Your task to perform on an android device: clear all cookies in the chrome app Image 0: 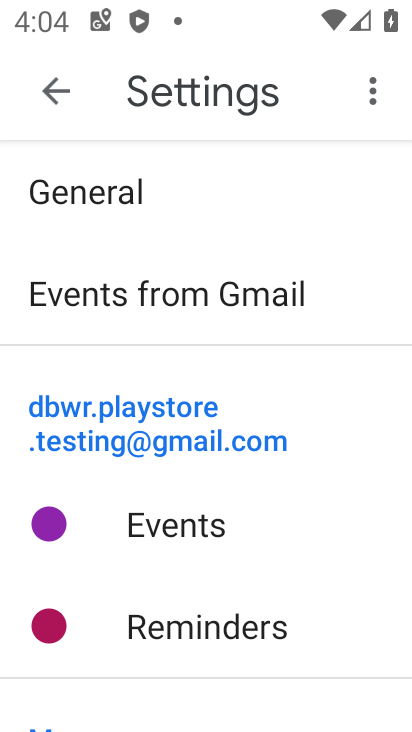
Step 0: press back button
Your task to perform on an android device: clear all cookies in the chrome app Image 1: 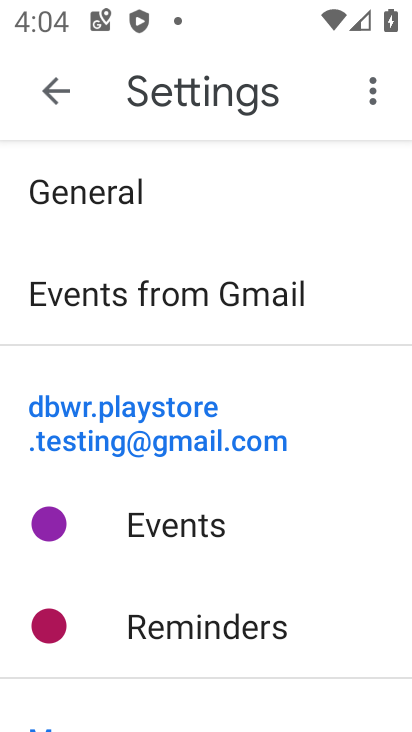
Step 1: press back button
Your task to perform on an android device: clear all cookies in the chrome app Image 2: 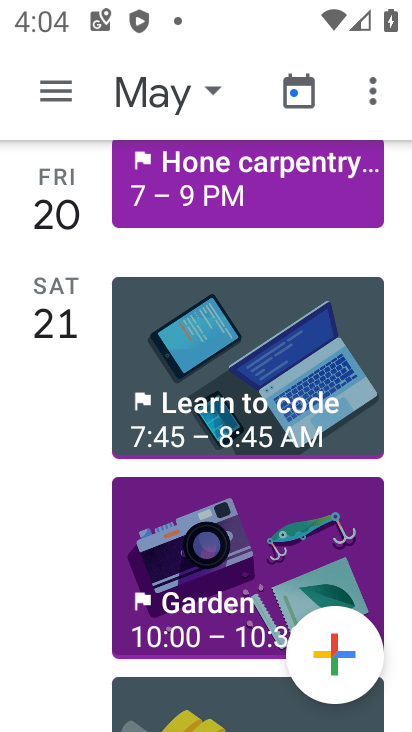
Step 2: press back button
Your task to perform on an android device: clear all cookies in the chrome app Image 3: 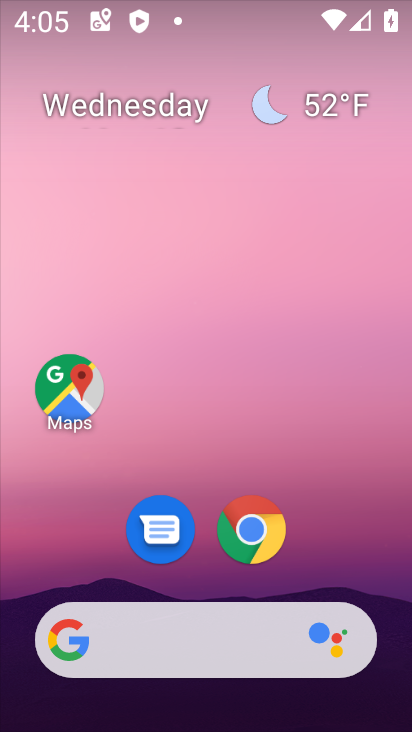
Step 3: click (248, 531)
Your task to perform on an android device: clear all cookies in the chrome app Image 4: 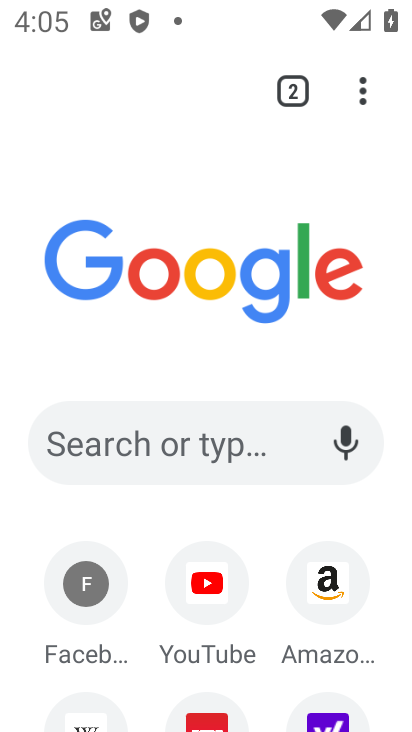
Step 4: click (362, 93)
Your task to perform on an android device: clear all cookies in the chrome app Image 5: 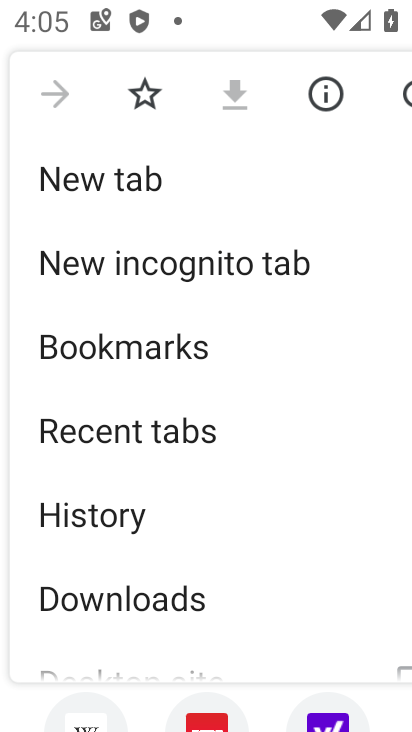
Step 5: drag from (196, 493) to (237, 421)
Your task to perform on an android device: clear all cookies in the chrome app Image 6: 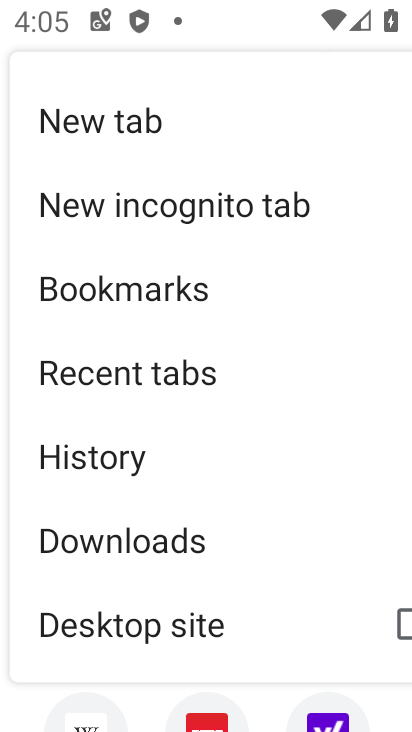
Step 6: drag from (150, 565) to (215, 445)
Your task to perform on an android device: clear all cookies in the chrome app Image 7: 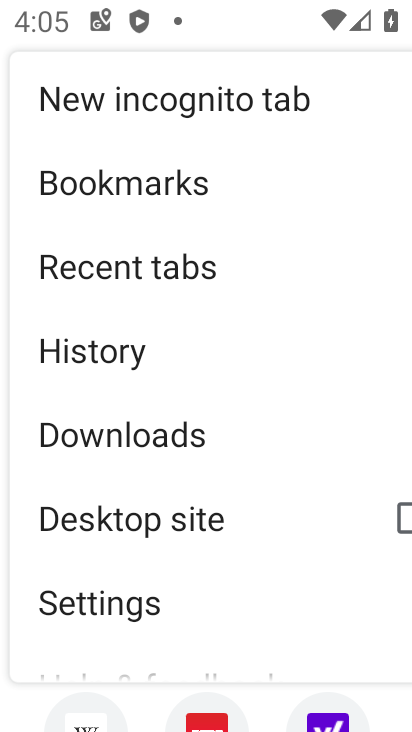
Step 7: click (122, 601)
Your task to perform on an android device: clear all cookies in the chrome app Image 8: 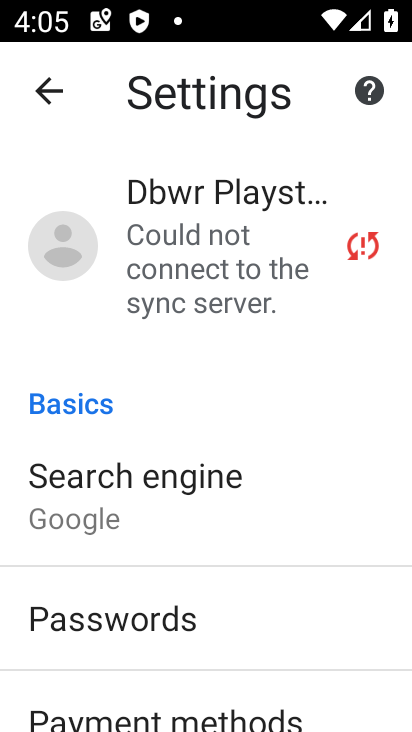
Step 8: drag from (180, 585) to (241, 486)
Your task to perform on an android device: clear all cookies in the chrome app Image 9: 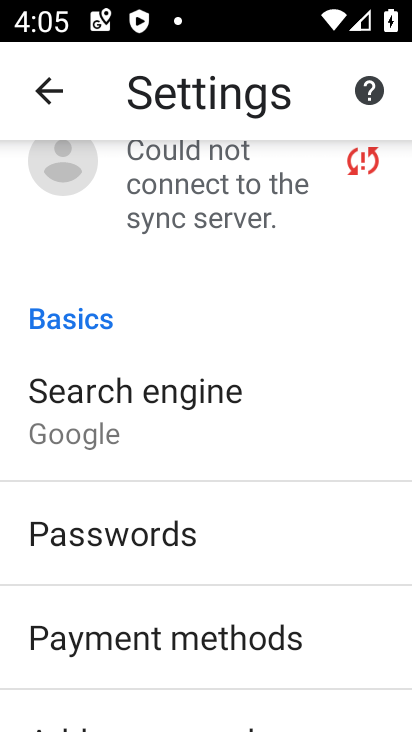
Step 9: drag from (184, 548) to (254, 383)
Your task to perform on an android device: clear all cookies in the chrome app Image 10: 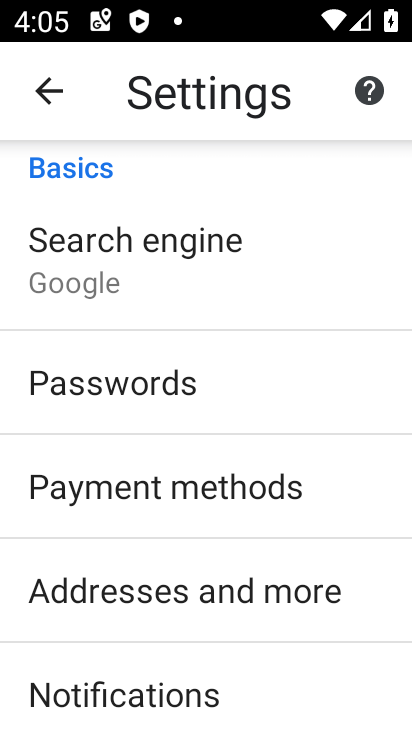
Step 10: drag from (143, 624) to (182, 356)
Your task to perform on an android device: clear all cookies in the chrome app Image 11: 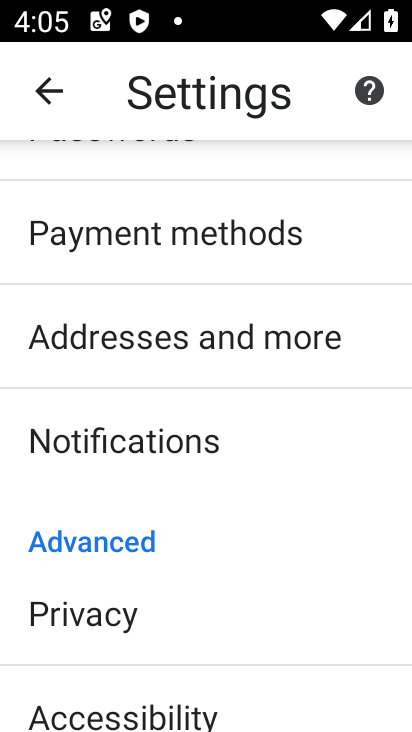
Step 11: drag from (100, 568) to (160, 455)
Your task to perform on an android device: clear all cookies in the chrome app Image 12: 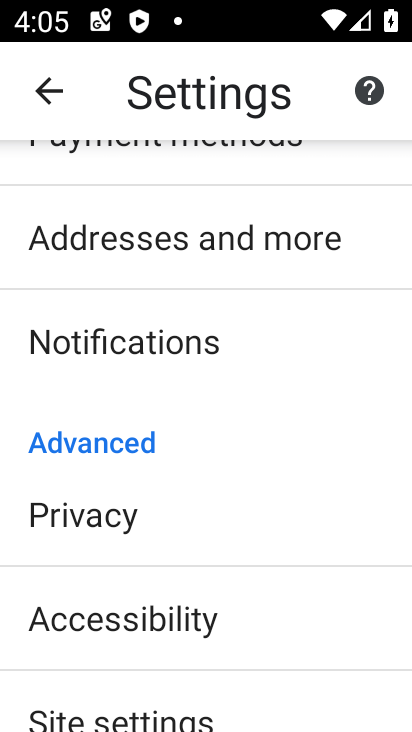
Step 12: click (96, 516)
Your task to perform on an android device: clear all cookies in the chrome app Image 13: 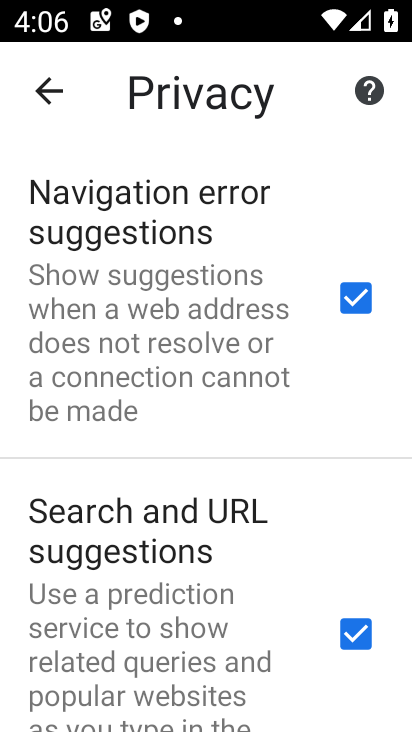
Step 13: drag from (179, 454) to (230, 322)
Your task to perform on an android device: clear all cookies in the chrome app Image 14: 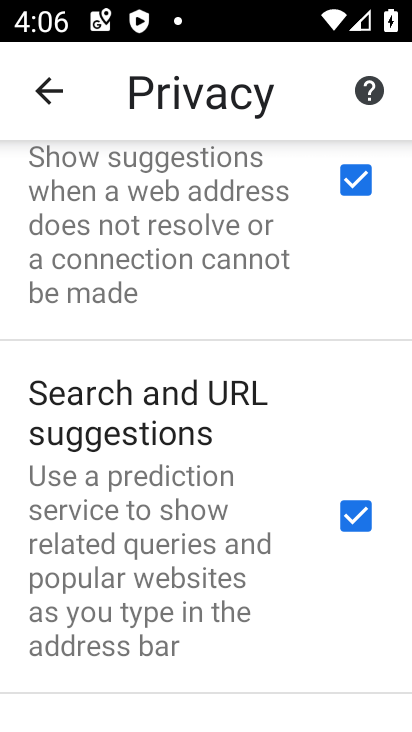
Step 14: drag from (177, 660) to (211, 404)
Your task to perform on an android device: clear all cookies in the chrome app Image 15: 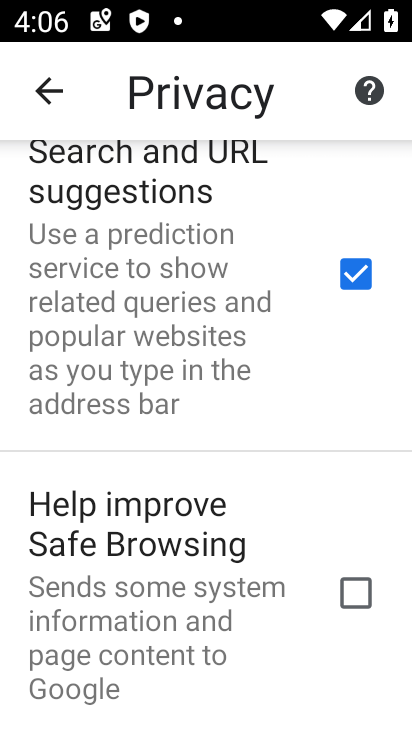
Step 15: drag from (133, 476) to (233, 221)
Your task to perform on an android device: clear all cookies in the chrome app Image 16: 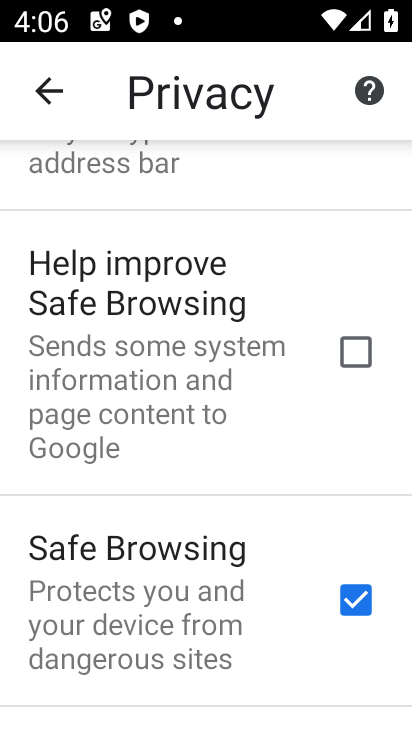
Step 16: drag from (155, 475) to (236, 265)
Your task to perform on an android device: clear all cookies in the chrome app Image 17: 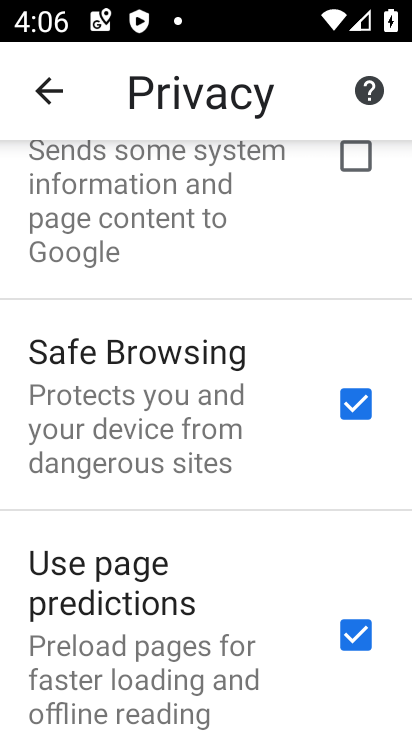
Step 17: drag from (110, 480) to (214, 302)
Your task to perform on an android device: clear all cookies in the chrome app Image 18: 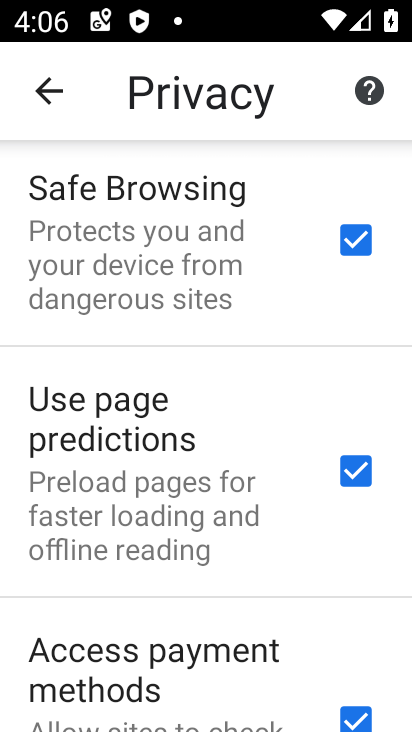
Step 18: drag from (105, 386) to (227, 155)
Your task to perform on an android device: clear all cookies in the chrome app Image 19: 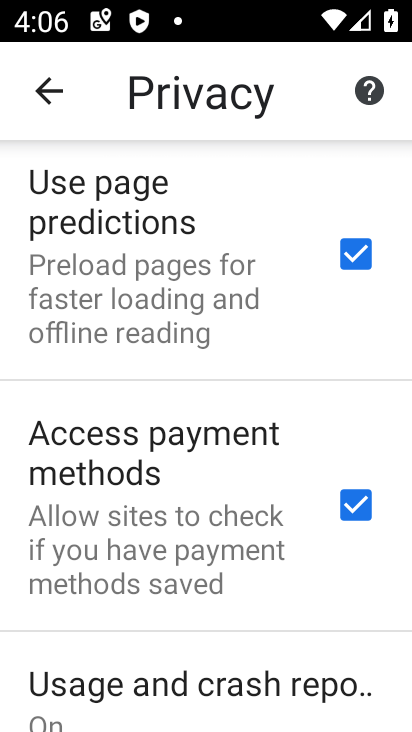
Step 19: drag from (96, 607) to (206, 385)
Your task to perform on an android device: clear all cookies in the chrome app Image 20: 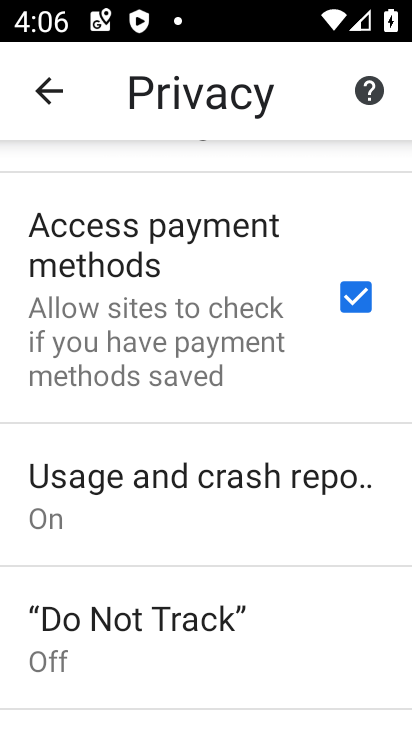
Step 20: drag from (122, 559) to (210, 362)
Your task to perform on an android device: clear all cookies in the chrome app Image 21: 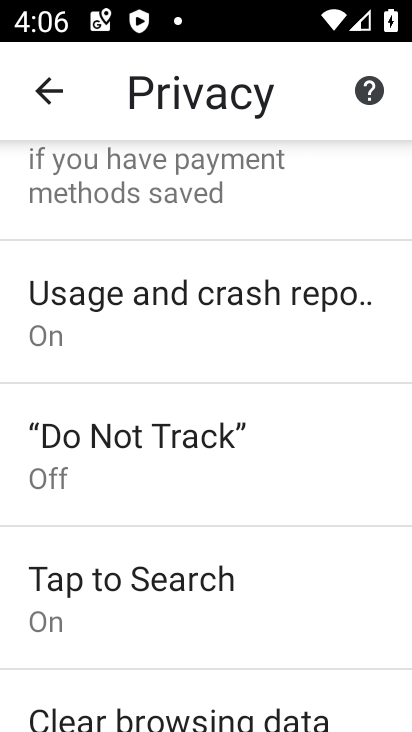
Step 21: drag from (125, 518) to (200, 310)
Your task to perform on an android device: clear all cookies in the chrome app Image 22: 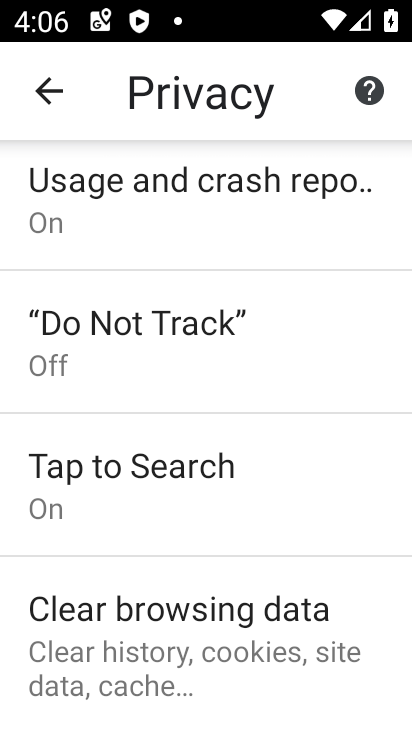
Step 22: drag from (104, 523) to (181, 392)
Your task to perform on an android device: clear all cookies in the chrome app Image 23: 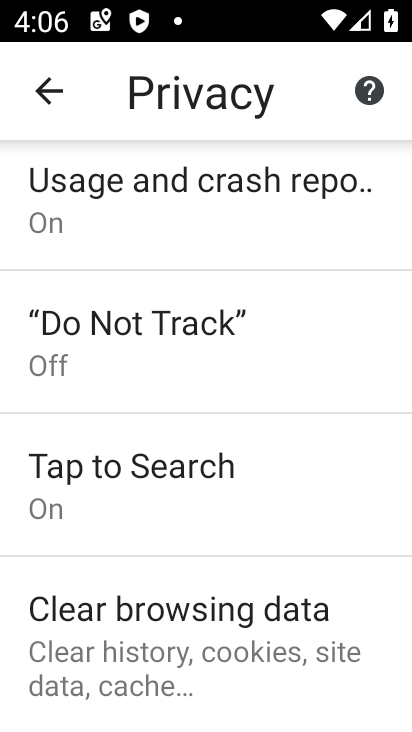
Step 23: click (153, 605)
Your task to perform on an android device: clear all cookies in the chrome app Image 24: 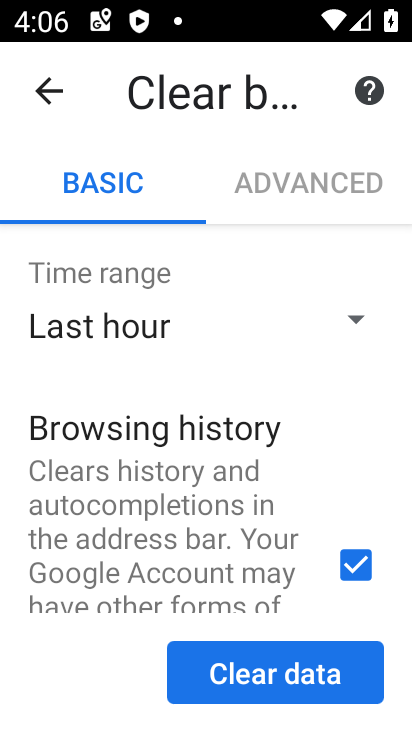
Step 24: click (354, 556)
Your task to perform on an android device: clear all cookies in the chrome app Image 25: 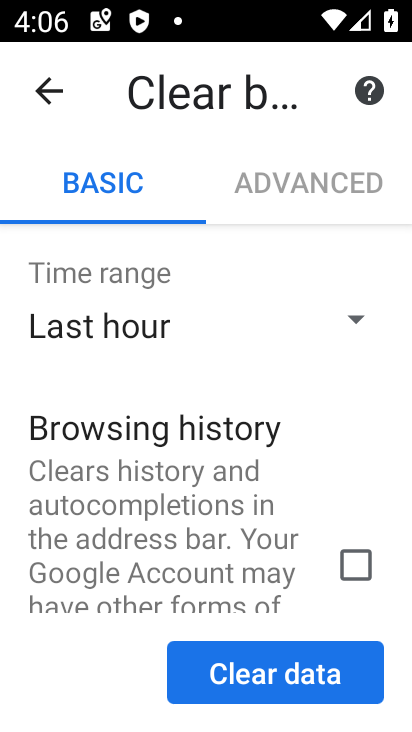
Step 25: click (358, 313)
Your task to perform on an android device: clear all cookies in the chrome app Image 26: 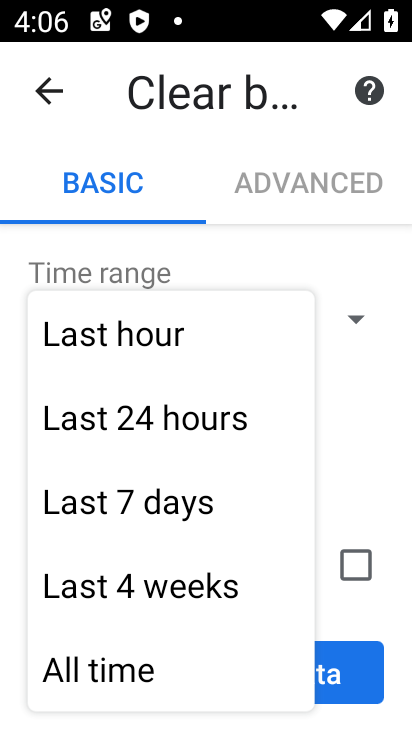
Step 26: click (124, 661)
Your task to perform on an android device: clear all cookies in the chrome app Image 27: 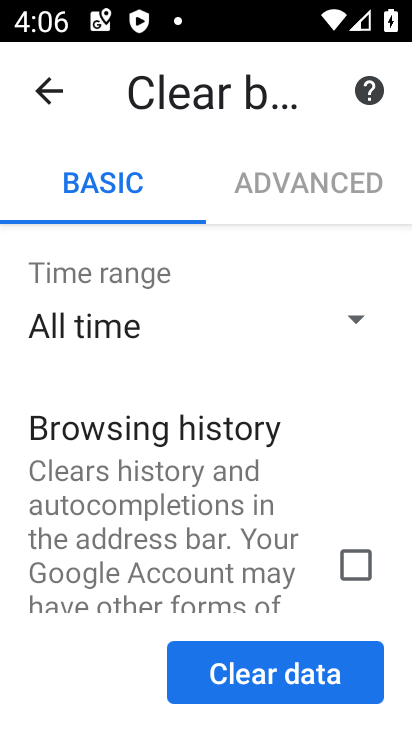
Step 27: drag from (318, 499) to (354, 156)
Your task to perform on an android device: clear all cookies in the chrome app Image 28: 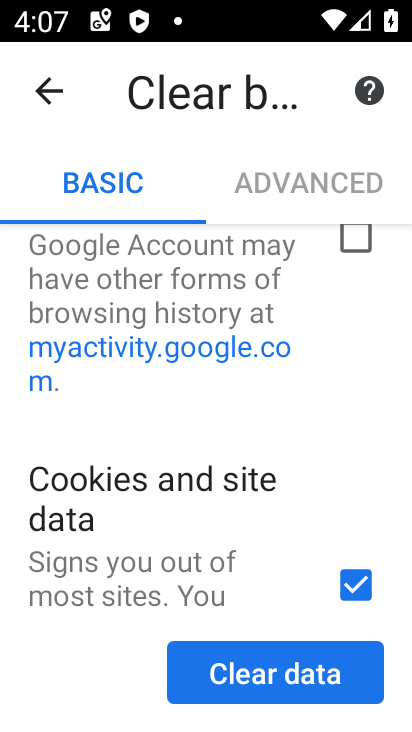
Step 28: click (275, 670)
Your task to perform on an android device: clear all cookies in the chrome app Image 29: 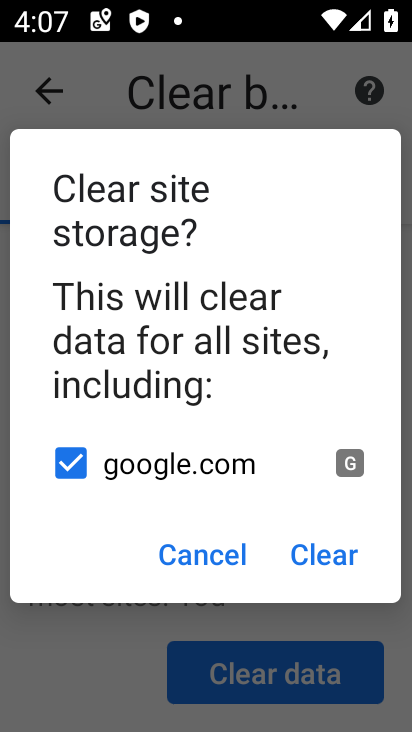
Step 29: click (318, 567)
Your task to perform on an android device: clear all cookies in the chrome app Image 30: 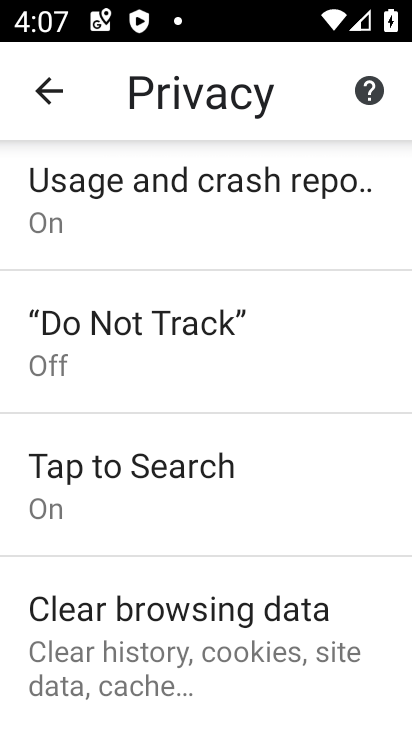
Step 30: task complete